Your task to perform on an android device: snooze an email in the gmail app Image 0: 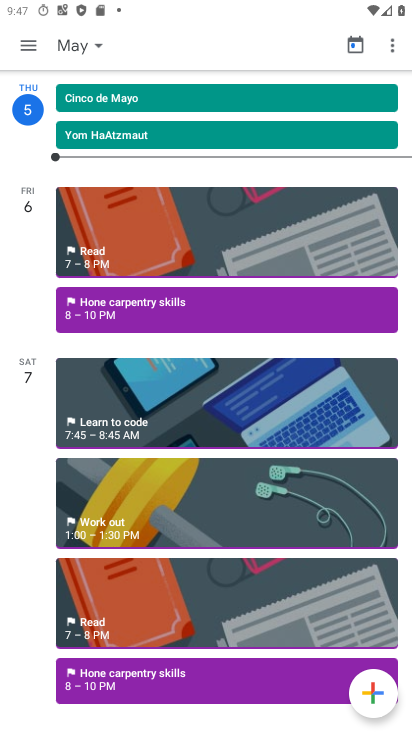
Step 0: press home button
Your task to perform on an android device: snooze an email in the gmail app Image 1: 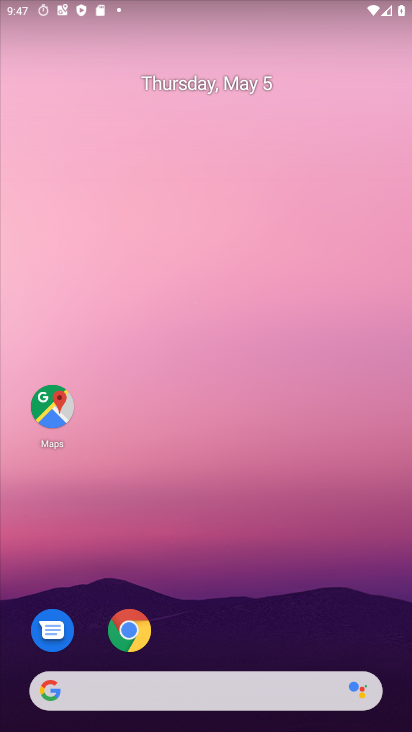
Step 1: drag from (193, 600) to (87, 164)
Your task to perform on an android device: snooze an email in the gmail app Image 2: 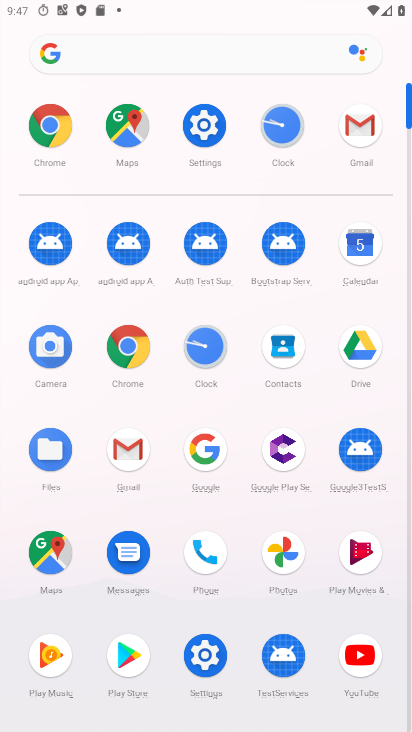
Step 2: click (124, 457)
Your task to perform on an android device: snooze an email in the gmail app Image 3: 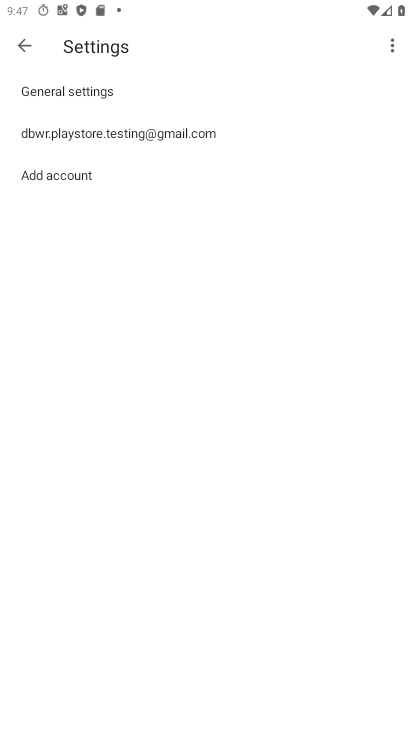
Step 3: press back button
Your task to perform on an android device: snooze an email in the gmail app Image 4: 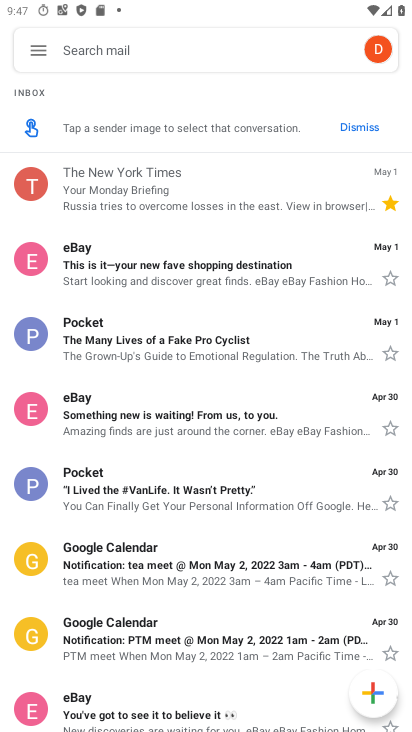
Step 4: click (328, 280)
Your task to perform on an android device: snooze an email in the gmail app Image 5: 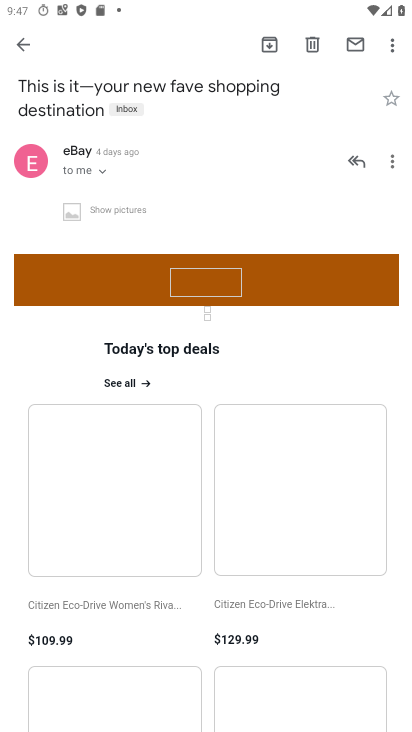
Step 5: click (391, 42)
Your task to perform on an android device: snooze an email in the gmail app Image 6: 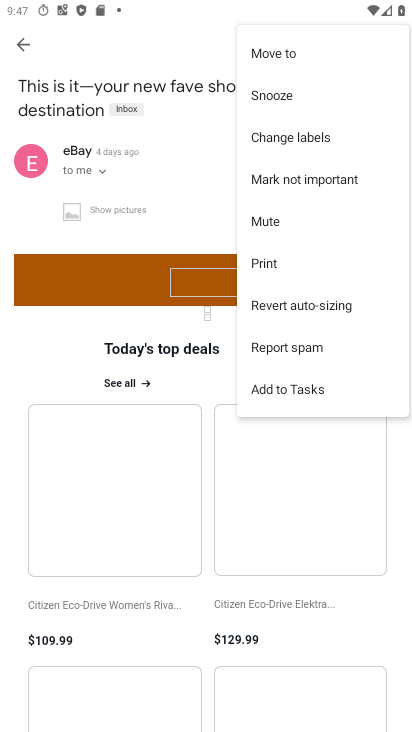
Step 6: click (269, 97)
Your task to perform on an android device: snooze an email in the gmail app Image 7: 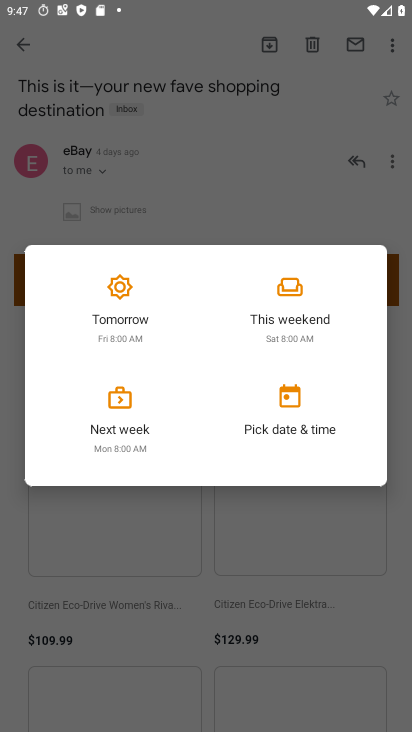
Step 7: click (124, 427)
Your task to perform on an android device: snooze an email in the gmail app Image 8: 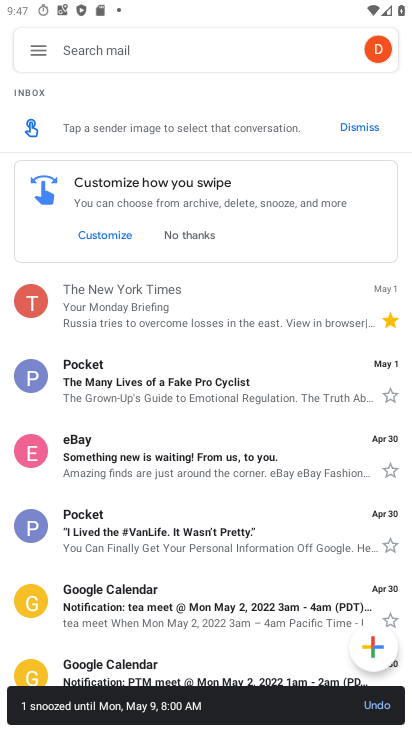
Step 8: task complete